Your task to perform on an android device: Open Maps and search for coffee Image 0: 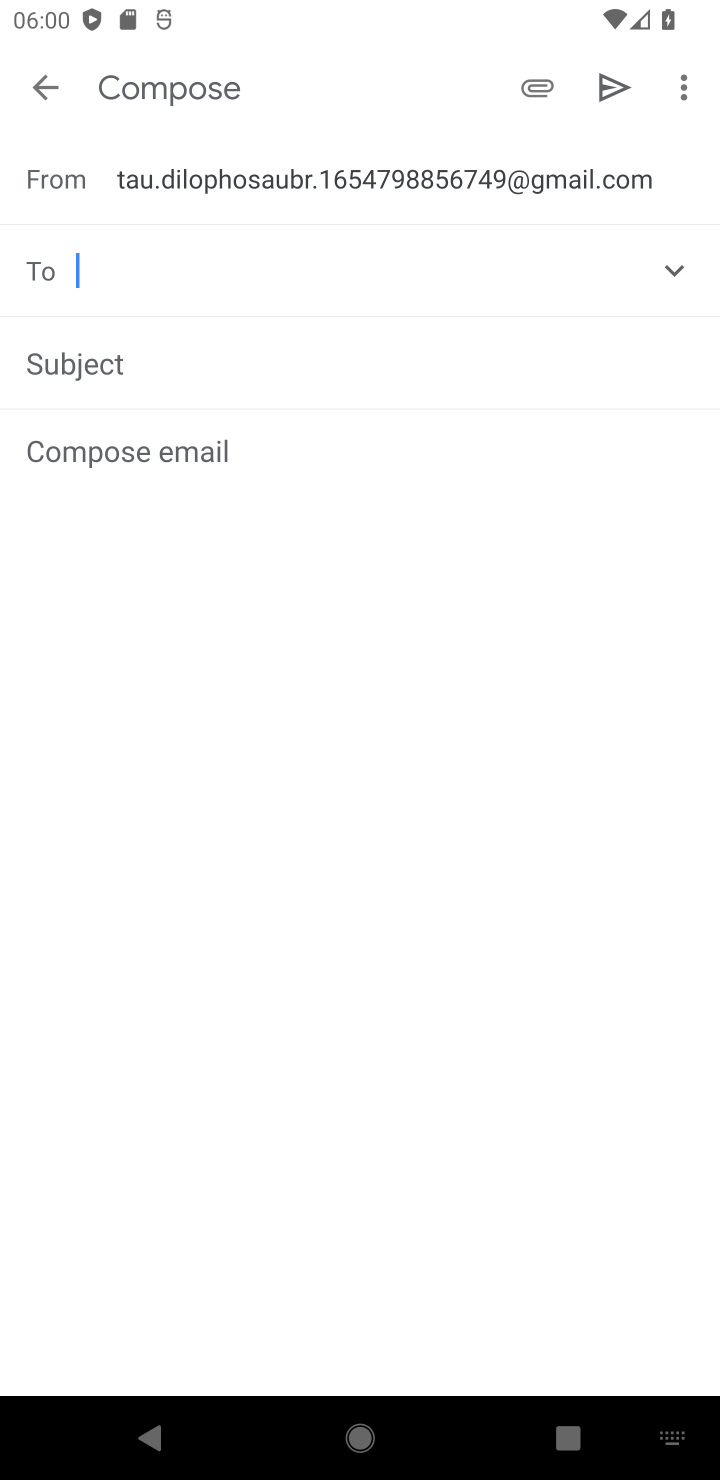
Step 0: press home button
Your task to perform on an android device: Open Maps and search for coffee Image 1: 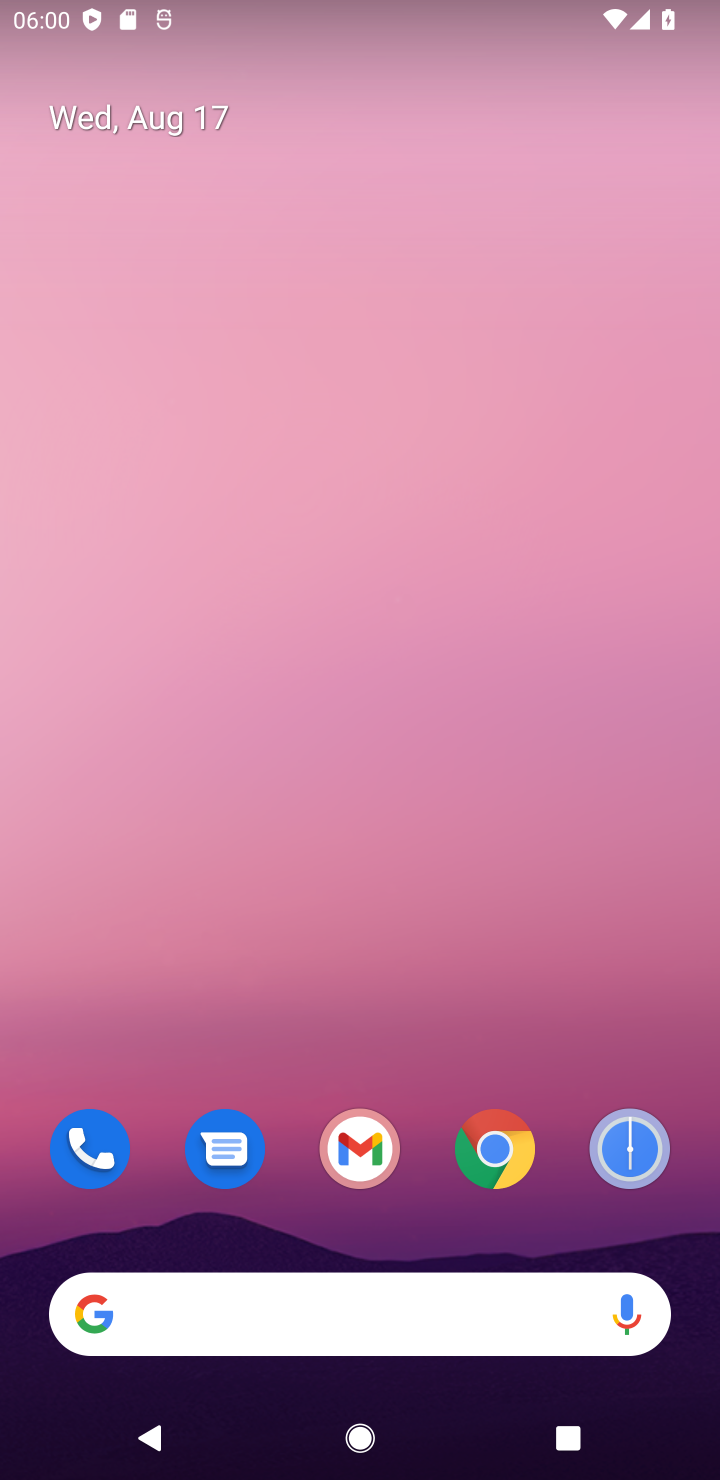
Step 1: drag from (417, 1031) to (435, 11)
Your task to perform on an android device: Open Maps and search for coffee Image 2: 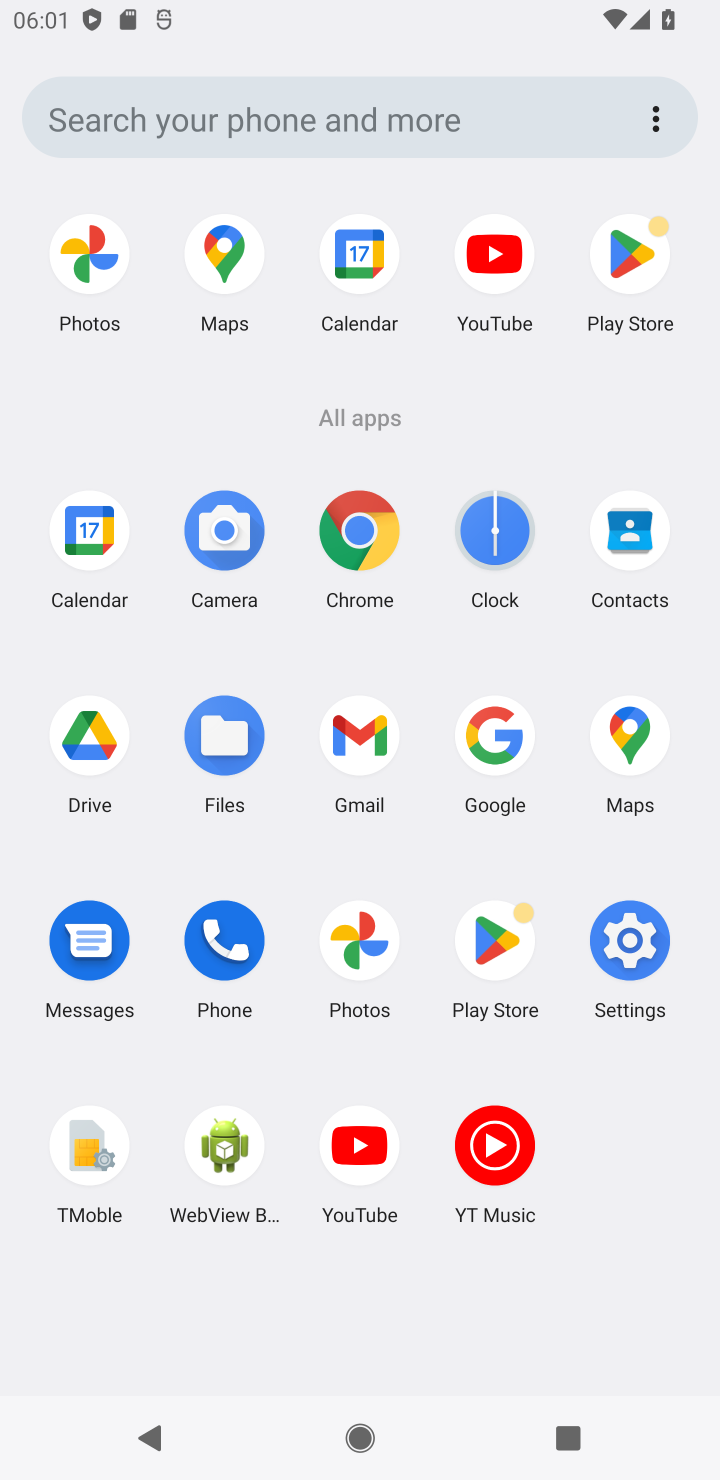
Step 2: click (223, 267)
Your task to perform on an android device: Open Maps and search for coffee Image 3: 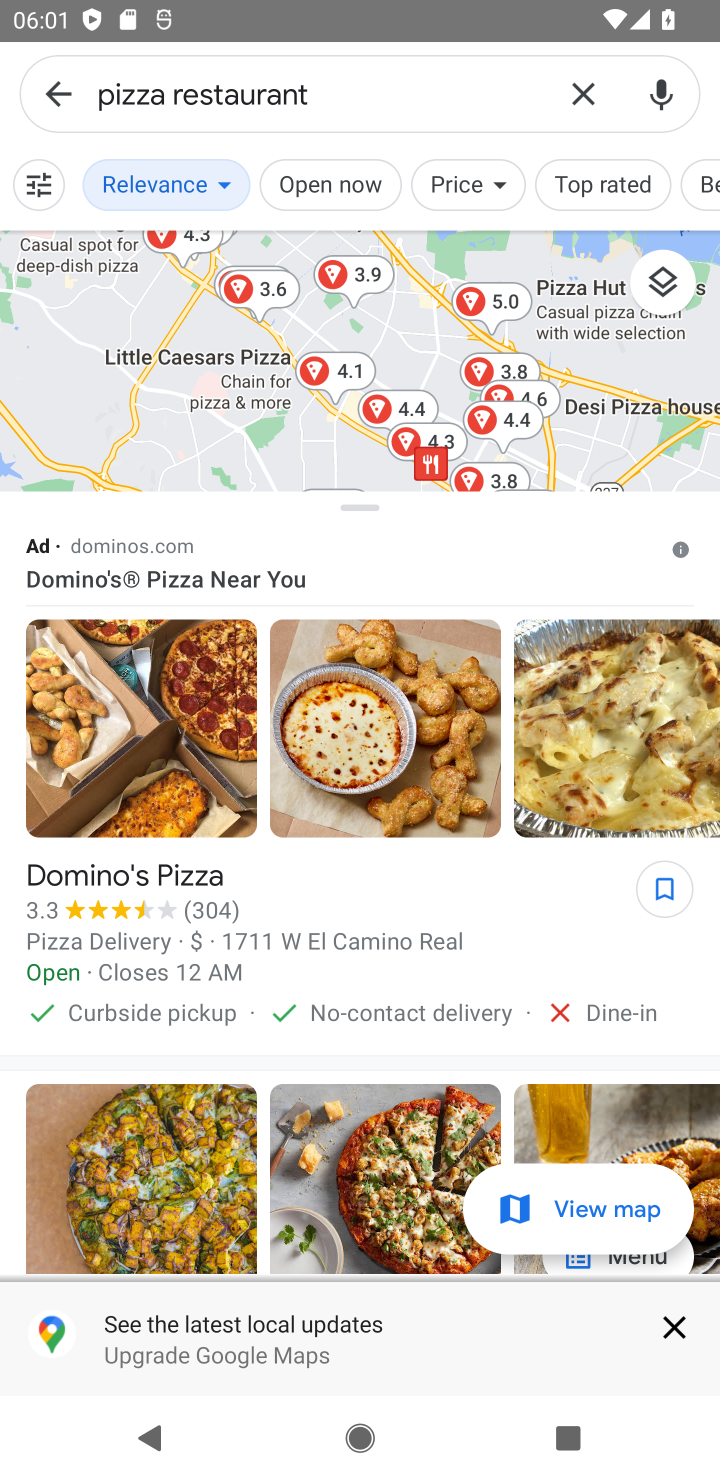
Step 3: click (580, 80)
Your task to perform on an android device: Open Maps and search for coffee Image 4: 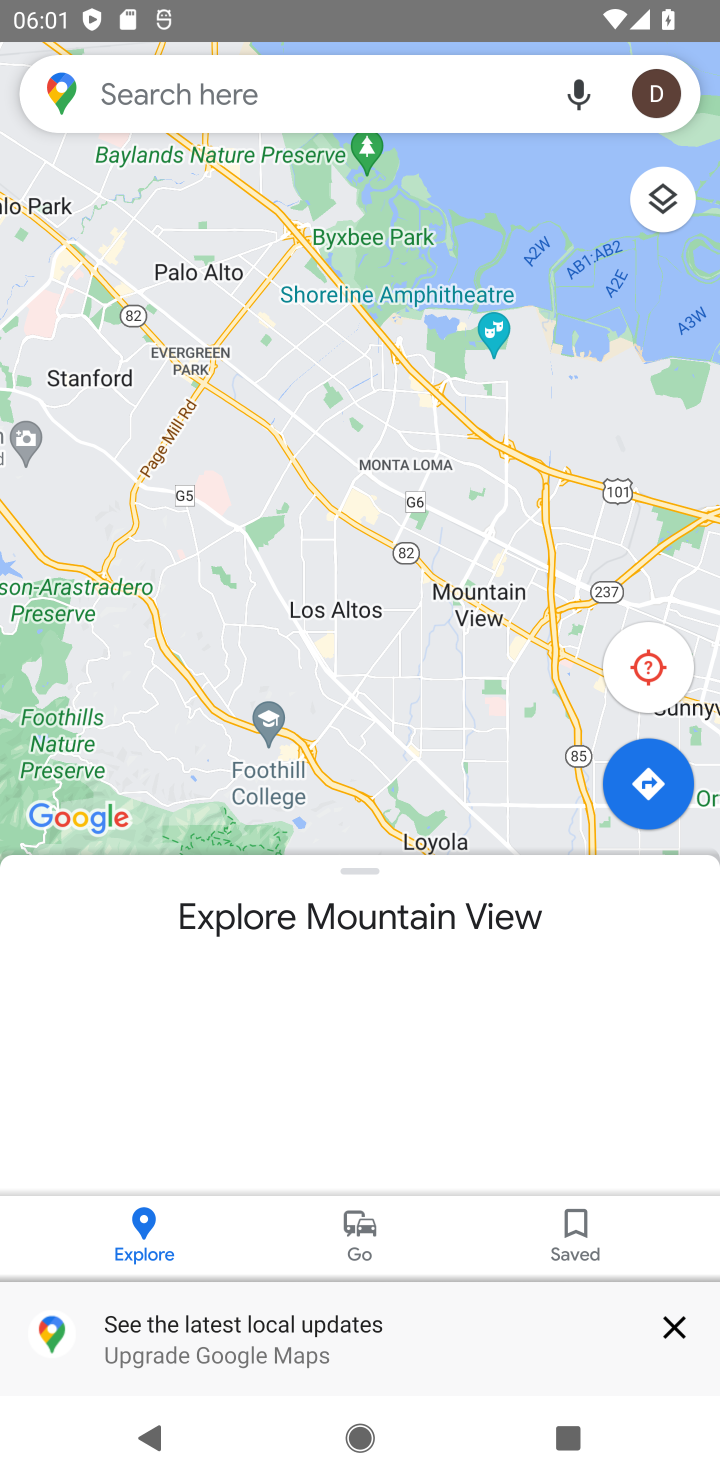
Step 4: click (368, 78)
Your task to perform on an android device: Open Maps and search for coffee Image 5: 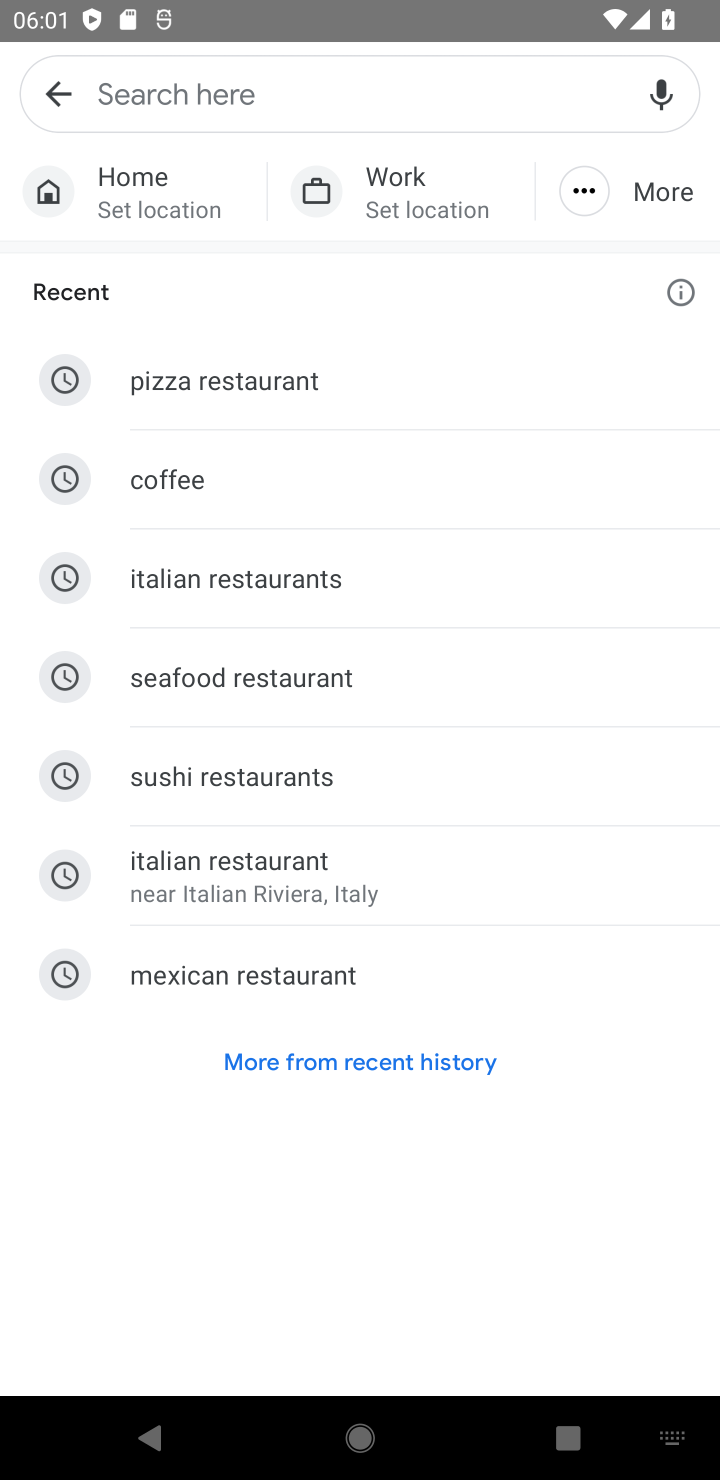
Step 5: click (175, 478)
Your task to perform on an android device: Open Maps and search for coffee Image 6: 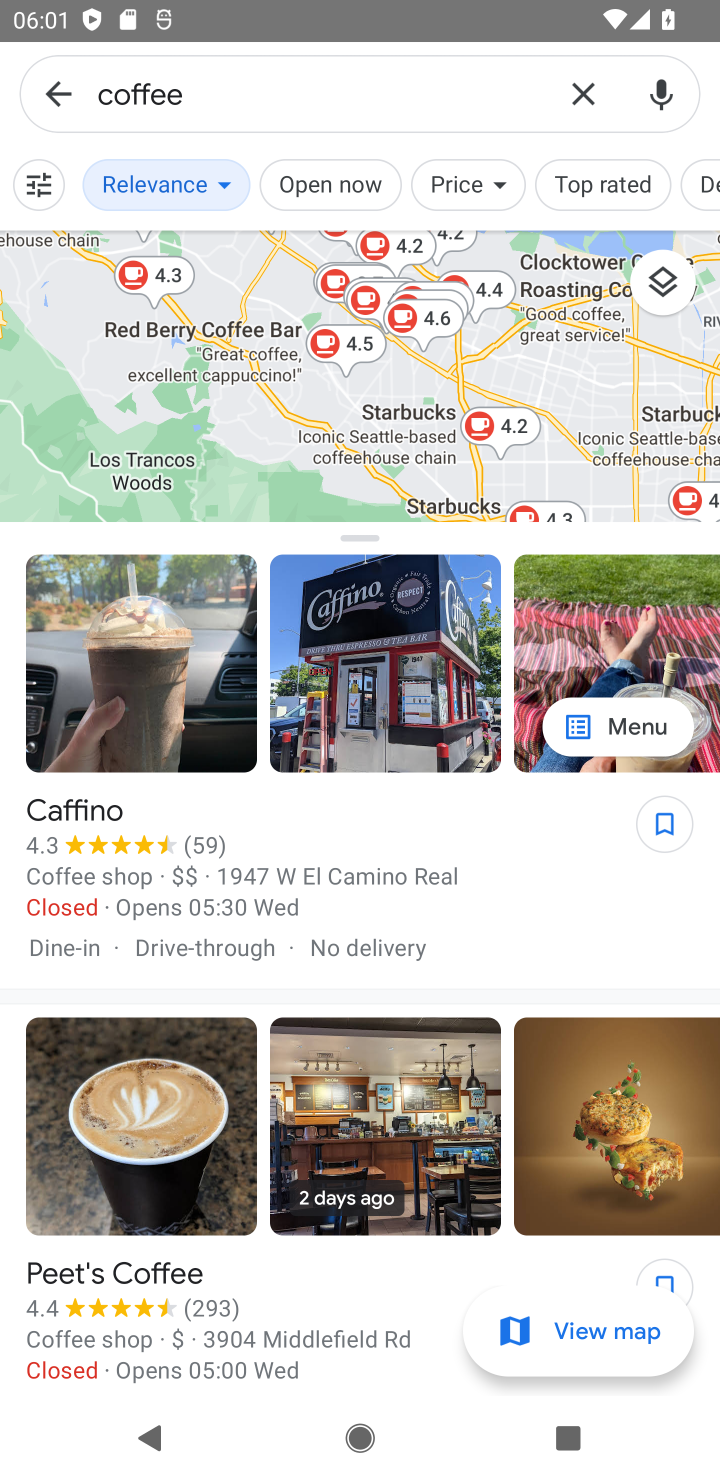
Step 6: task complete